Your task to perform on an android device: Open calendar and show me the third week of next month Image 0: 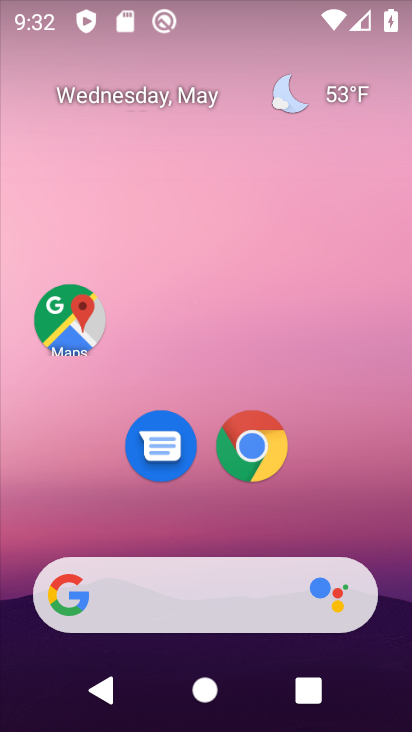
Step 0: drag from (355, 515) to (340, 240)
Your task to perform on an android device: Open calendar and show me the third week of next month Image 1: 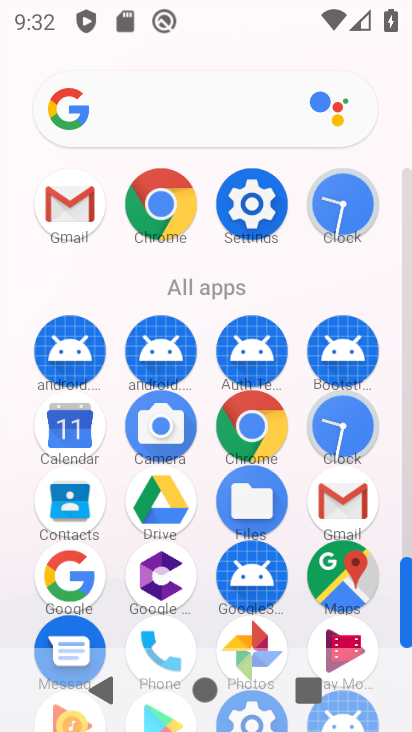
Step 1: click (73, 410)
Your task to perform on an android device: Open calendar and show me the third week of next month Image 2: 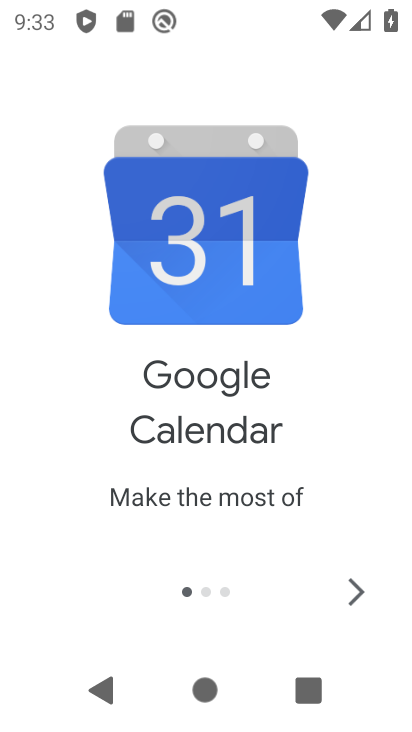
Step 2: click (352, 588)
Your task to perform on an android device: Open calendar and show me the third week of next month Image 3: 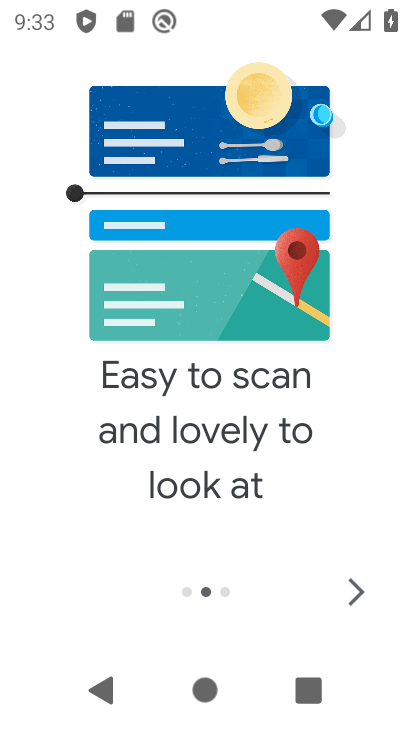
Step 3: click (352, 588)
Your task to perform on an android device: Open calendar and show me the third week of next month Image 4: 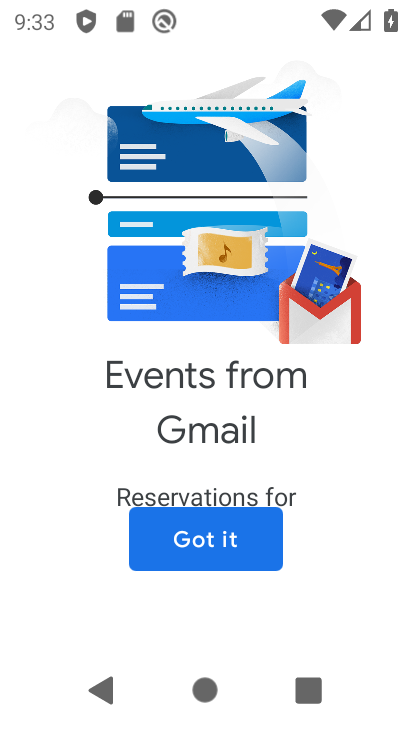
Step 4: click (247, 561)
Your task to perform on an android device: Open calendar and show me the third week of next month Image 5: 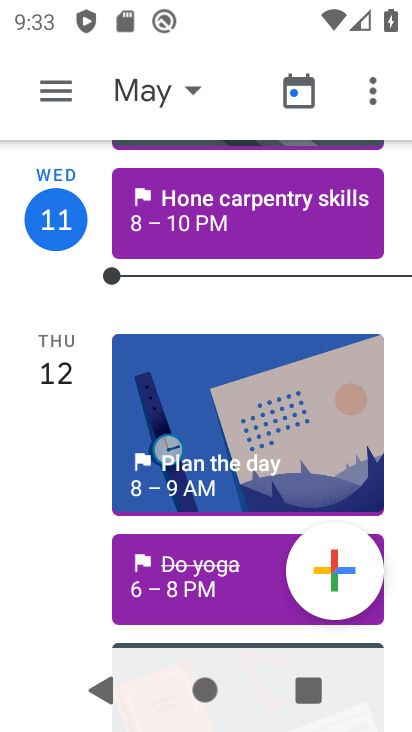
Step 5: click (150, 89)
Your task to perform on an android device: Open calendar and show me the third week of next month Image 6: 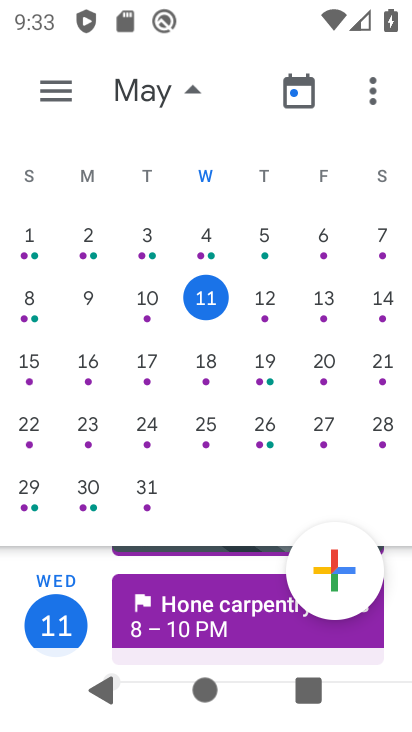
Step 6: drag from (370, 345) to (47, 293)
Your task to perform on an android device: Open calendar and show me the third week of next month Image 7: 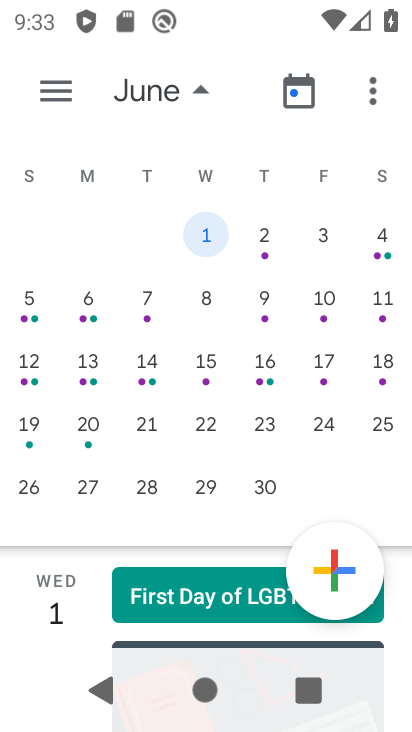
Step 7: click (86, 422)
Your task to perform on an android device: Open calendar and show me the third week of next month Image 8: 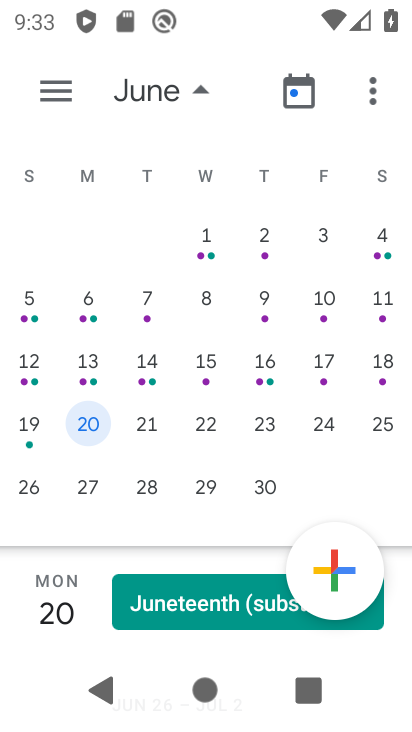
Step 8: click (61, 104)
Your task to perform on an android device: Open calendar and show me the third week of next month Image 9: 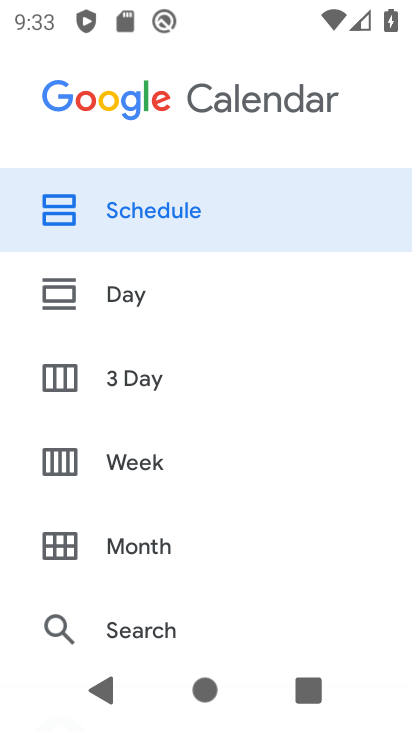
Step 9: click (159, 457)
Your task to perform on an android device: Open calendar and show me the third week of next month Image 10: 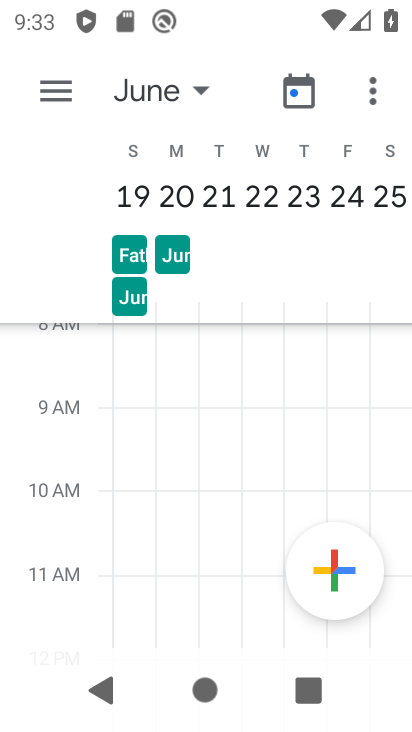
Step 10: task complete